Your task to perform on an android device: turn off priority inbox in the gmail app Image 0: 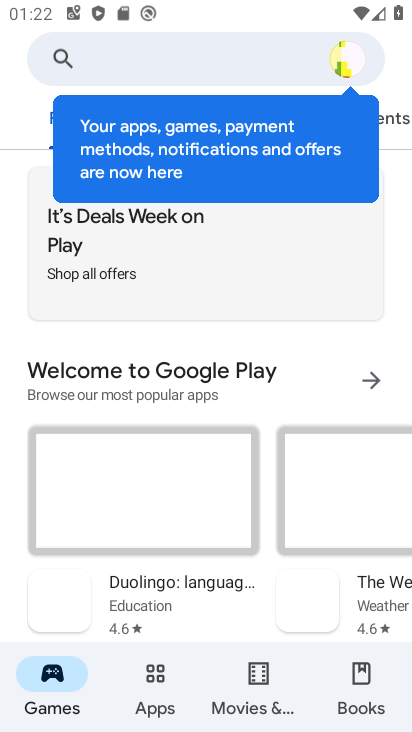
Step 0: press home button
Your task to perform on an android device: turn off priority inbox in the gmail app Image 1: 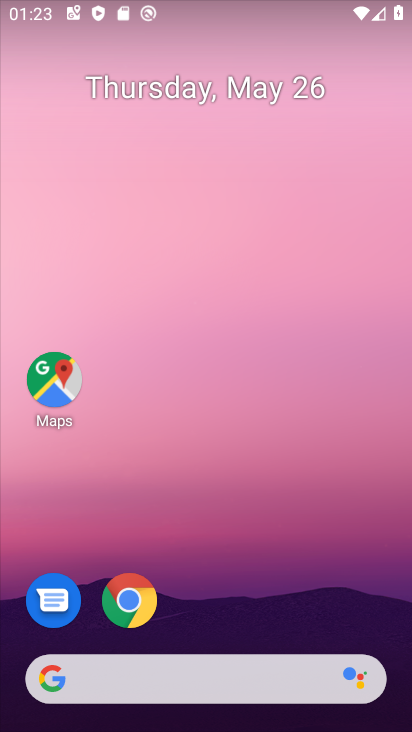
Step 1: drag from (290, 609) to (350, 161)
Your task to perform on an android device: turn off priority inbox in the gmail app Image 2: 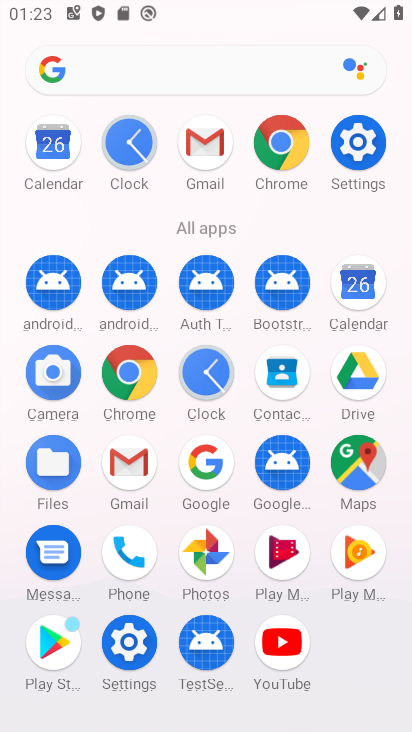
Step 2: click (216, 160)
Your task to perform on an android device: turn off priority inbox in the gmail app Image 3: 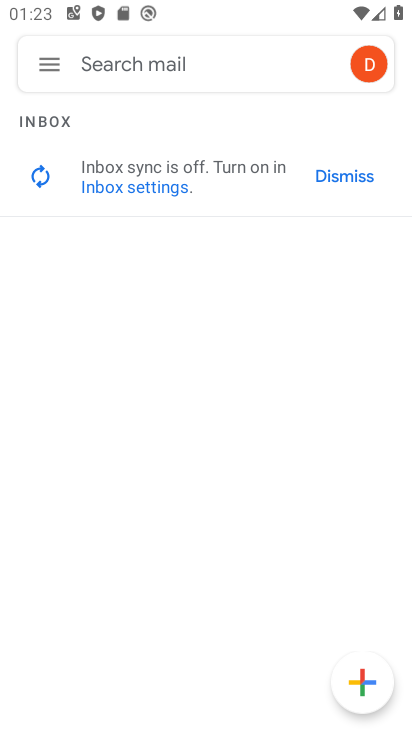
Step 3: click (51, 65)
Your task to perform on an android device: turn off priority inbox in the gmail app Image 4: 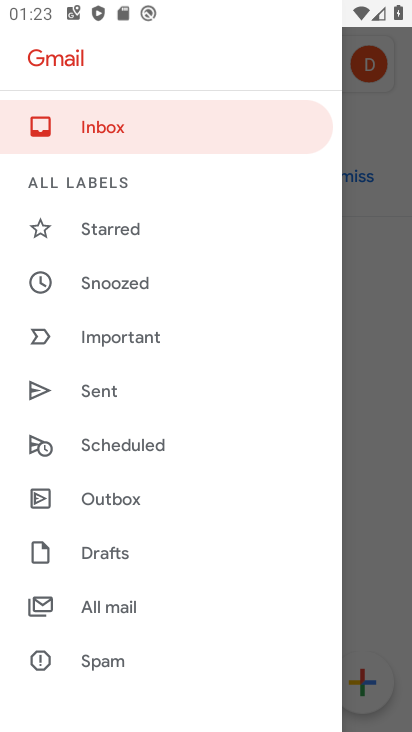
Step 4: drag from (239, 528) to (235, 45)
Your task to perform on an android device: turn off priority inbox in the gmail app Image 5: 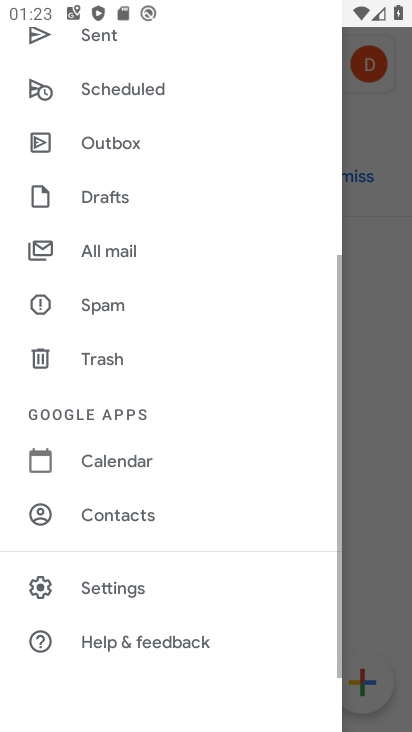
Step 5: click (146, 600)
Your task to perform on an android device: turn off priority inbox in the gmail app Image 6: 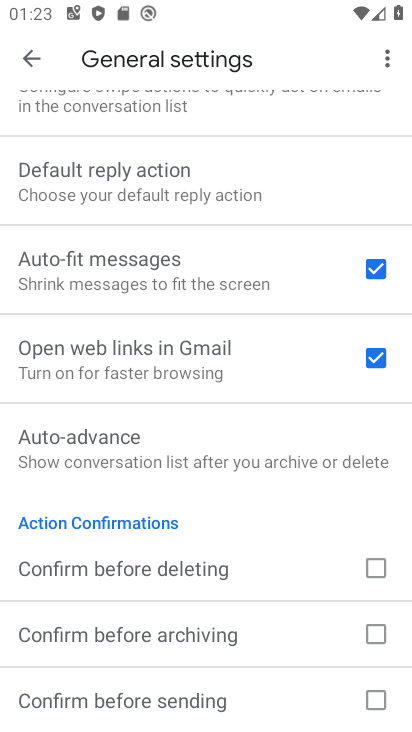
Step 6: task complete